Your task to perform on an android device: check storage Image 0: 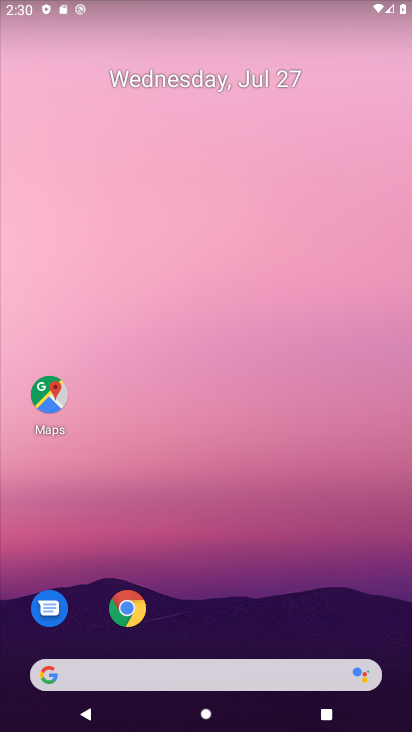
Step 0: press home button
Your task to perform on an android device: check storage Image 1: 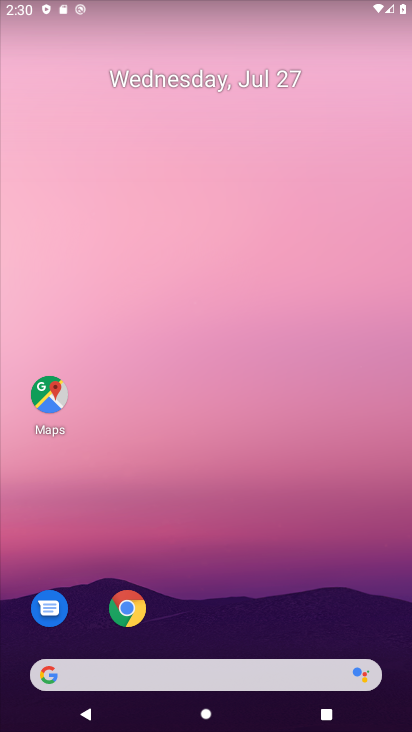
Step 1: drag from (206, 625) to (137, 176)
Your task to perform on an android device: check storage Image 2: 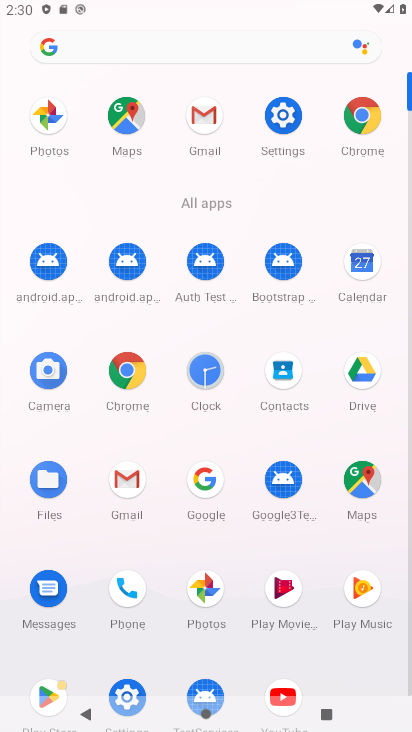
Step 2: click (280, 116)
Your task to perform on an android device: check storage Image 3: 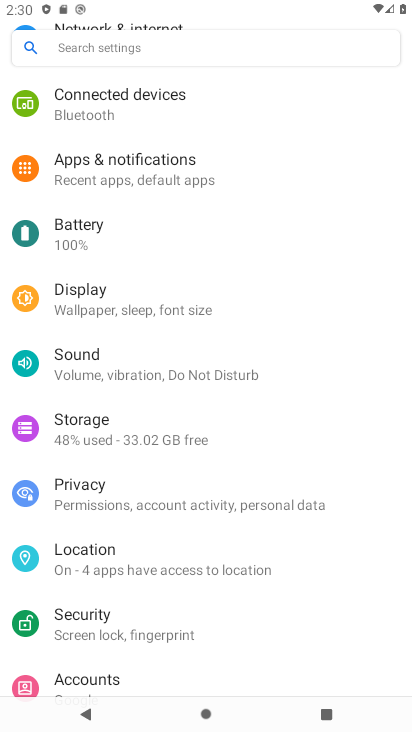
Step 3: click (73, 410)
Your task to perform on an android device: check storage Image 4: 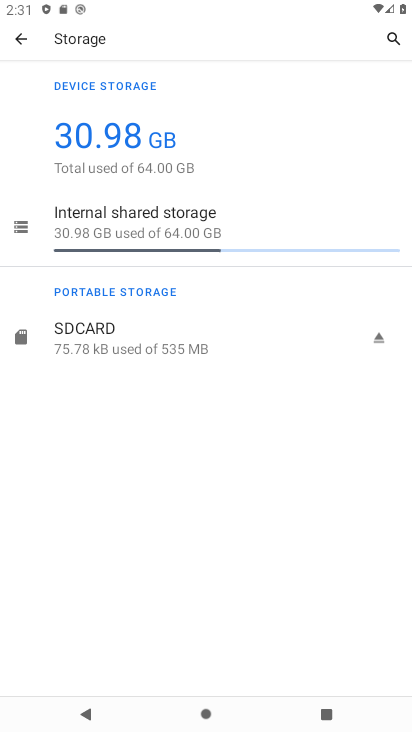
Step 4: task complete